Your task to perform on an android device: Go to Maps Image 0: 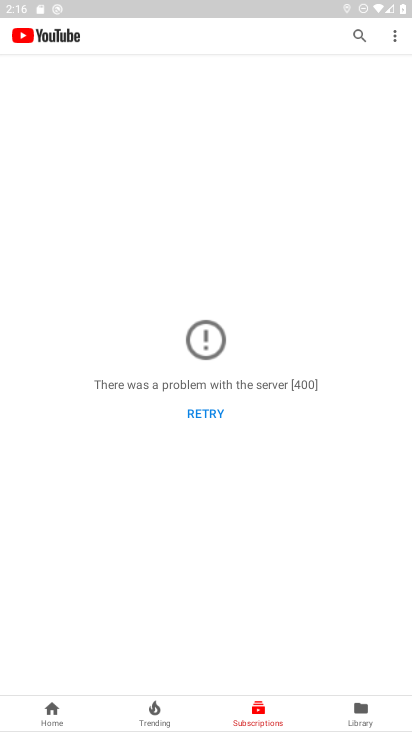
Step 0: press home button
Your task to perform on an android device: Go to Maps Image 1: 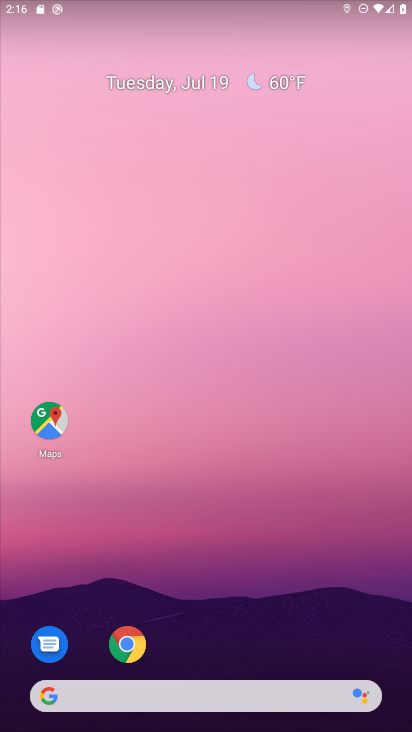
Step 1: click (40, 433)
Your task to perform on an android device: Go to Maps Image 2: 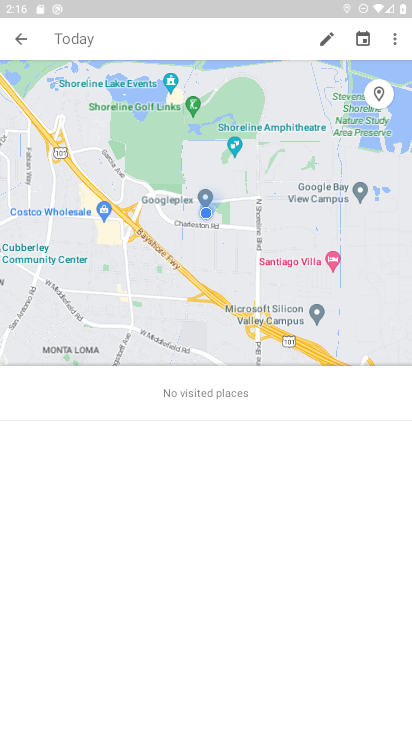
Step 2: click (25, 37)
Your task to perform on an android device: Go to Maps Image 3: 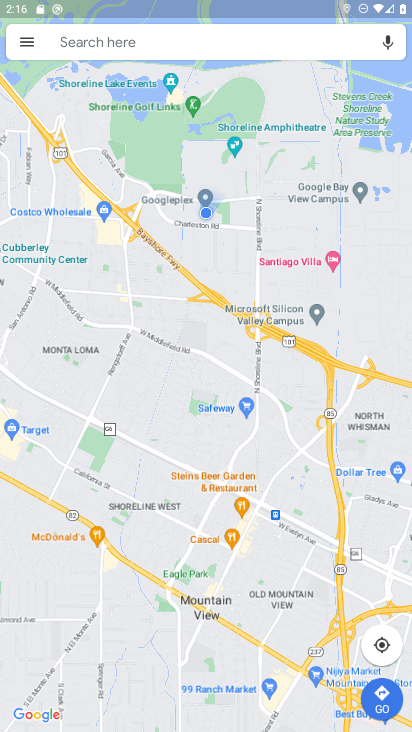
Step 3: task complete